Your task to perform on an android device: toggle javascript in the chrome app Image 0: 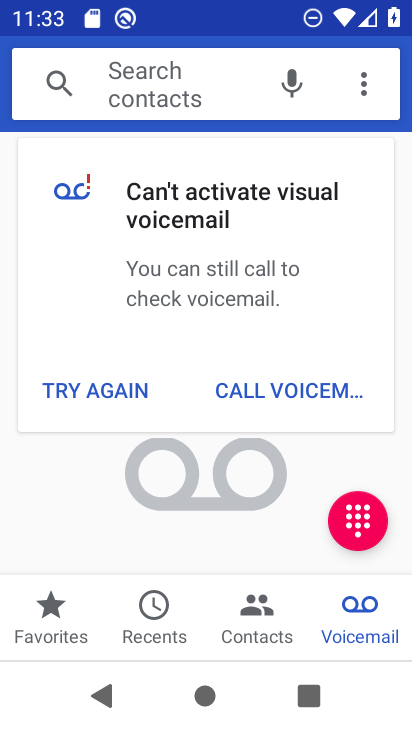
Step 0: press home button
Your task to perform on an android device: toggle javascript in the chrome app Image 1: 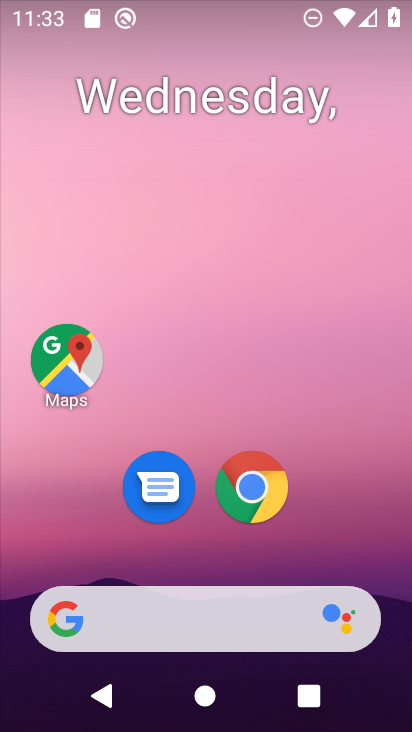
Step 1: click (256, 496)
Your task to perform on an android device: toggle javascript in the chrome app Image 2: 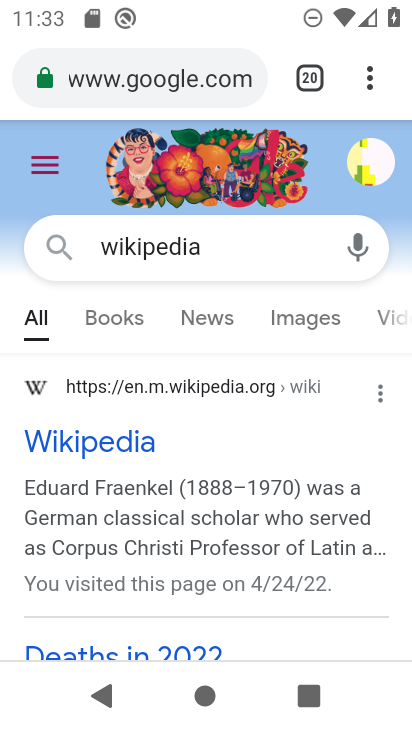
Step 2: click (371, 79)
Your task to perform on an android device: toggle javascript in the chrome app Image 3: 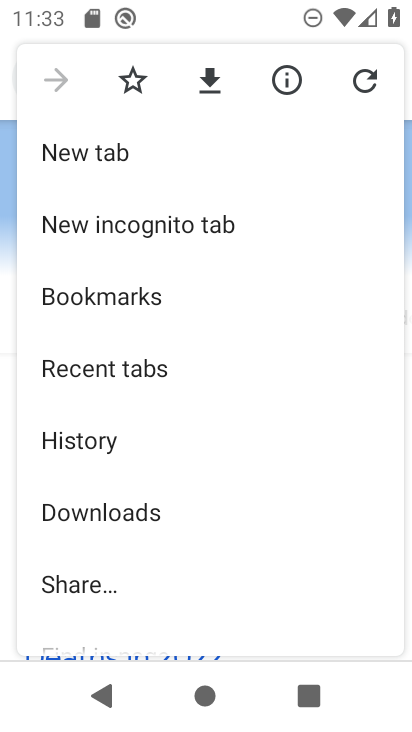
Step 3: drag from (227, 473) to (192, 113)
Your task to perform on an android device: toggle javascript in the chrome app Image 4: 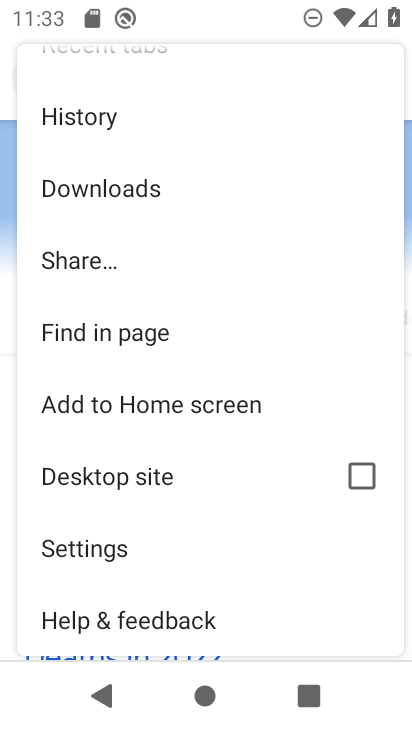
Step 4: drag from (160, 508) to (140, 120)
Your task to perform on an android device: toggle javascript in the chrome app Image 5: 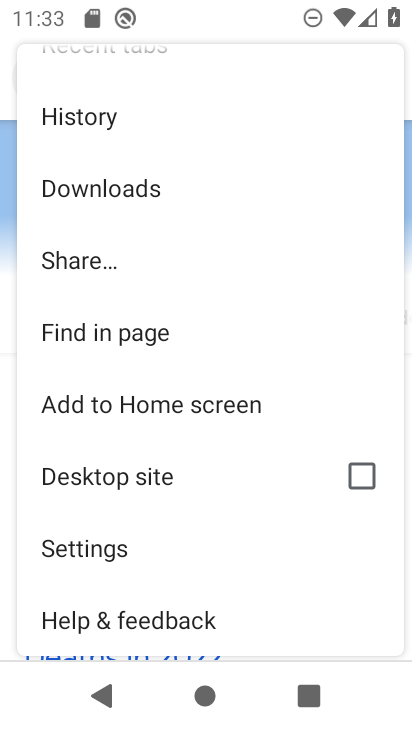
Step 5: click (88, 548)
Your task to perform on an android device: toggle javascript in the chrome app Image 6: 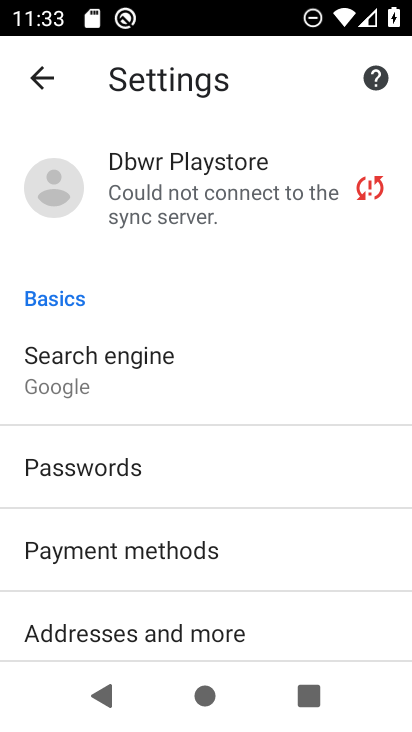
Step 6: drag from (279, 535) to (225, 224)
Your task to perform on an android device: toggle javascript in the chrome app Image 7: 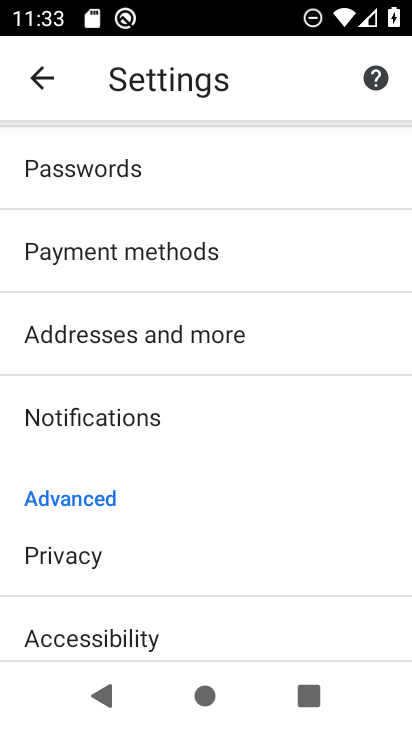
Step 7: drag from (291, 401) to (291, 1)
Your task to perform on an android device: toggle javascript in the chrome app Image 8: 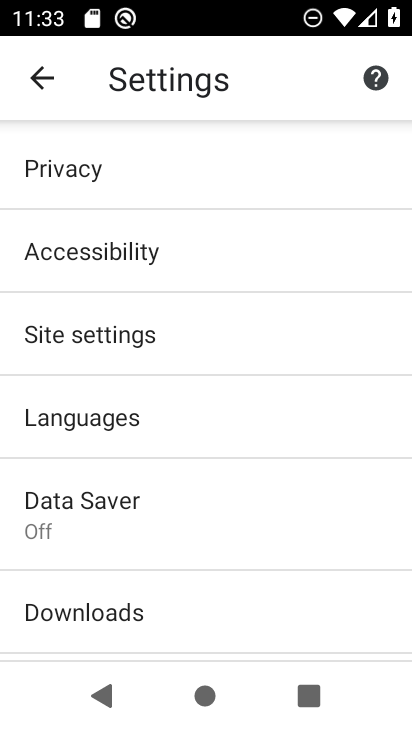
Step 8: click (129, 332)
Your task to perform on an android device: toggle javascript in the chrome app Image 9: 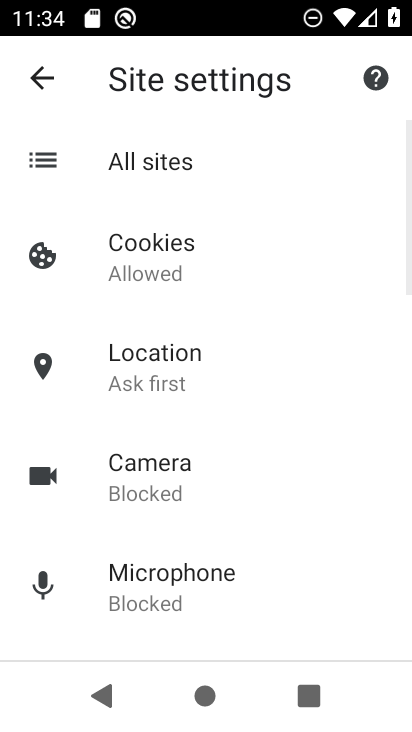
Step 9: drag from (259, 476) to (254, 6)
Your task to perform on an android device: toggle javascript in the chrome app Image 10: 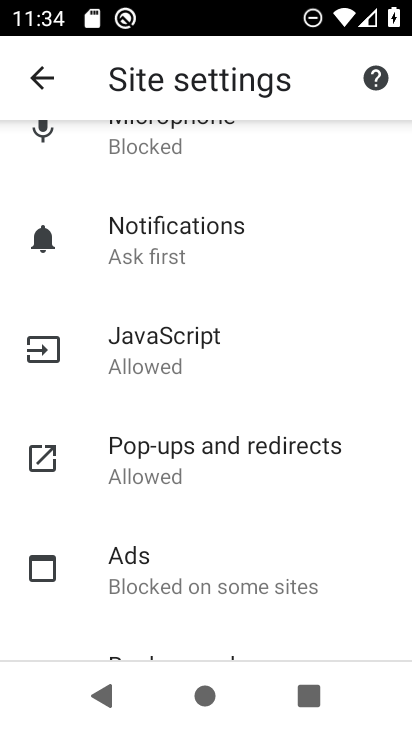
Step 10: click (158, 328)
Your task to perform on an android device: toggle javascript in the chrome app Image 11: 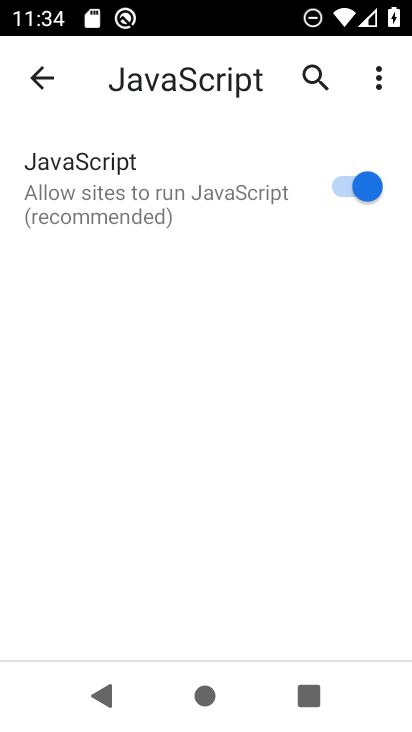
Step 11: click (368, 184)
Your task to perform on an android device: toggle javascript in the chrome app Image 12: 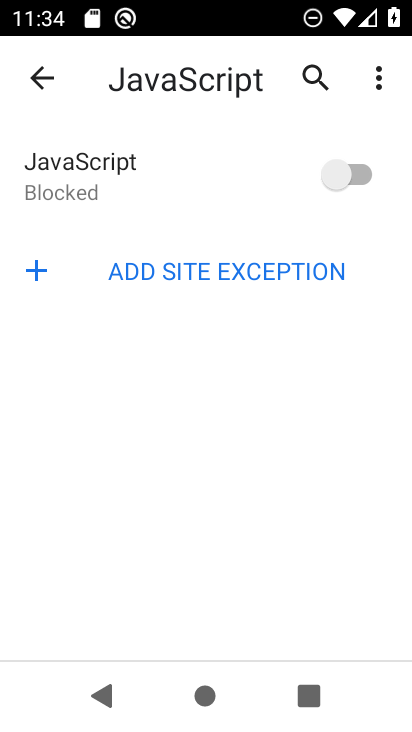
Step 12: task complete